Your task to perform on an android device: open app "Speedtest by Ookla" (install if not already installed) Image 0: 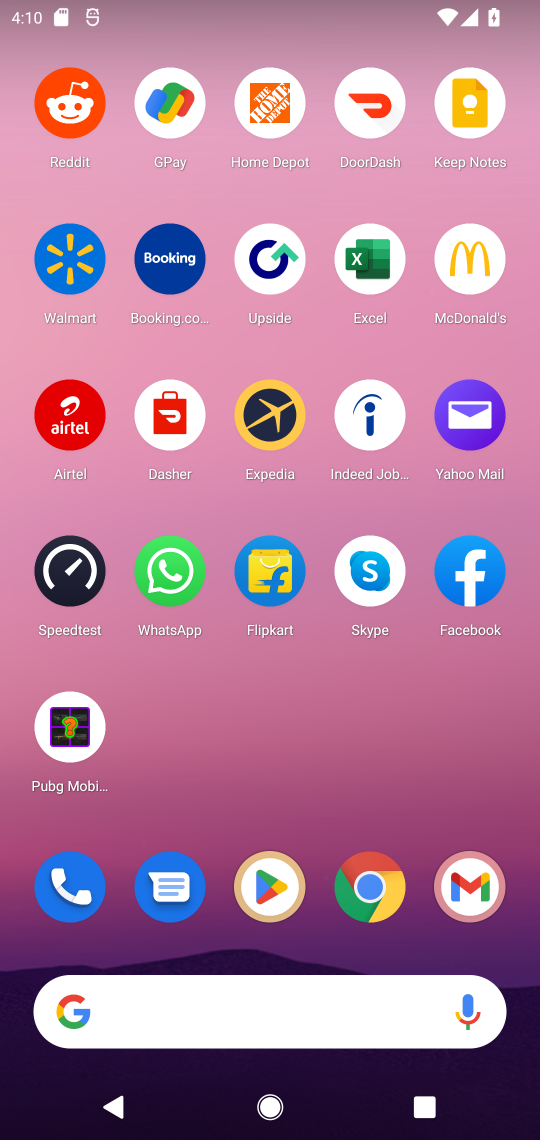
Step 0: click (252, 898)
Your task to perform on an android device: open app "Speedtest by Ookla" (install if not already installed) Image 1: 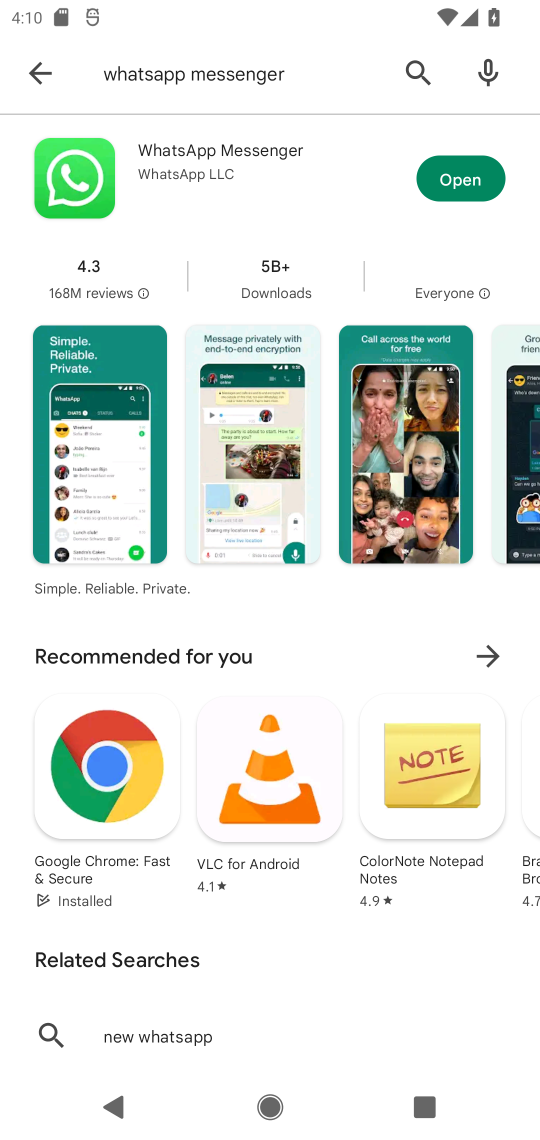
Step 1: click (36, 73)
Your task to perform on an android device: open app "Speedtest by Ookla" (install if not already installed) Image 2: 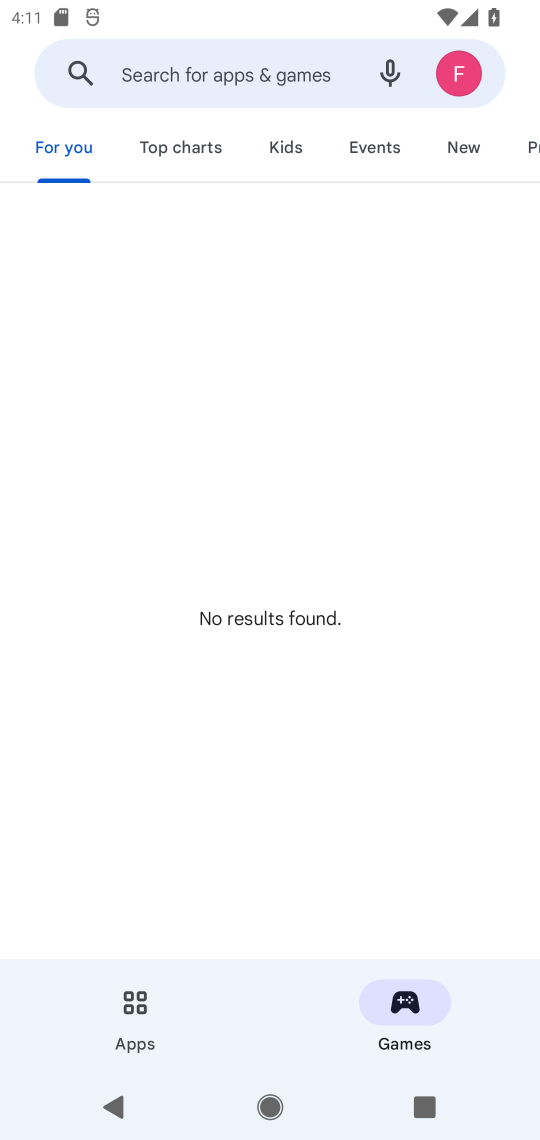
Step 2: click (189, 67)
Your task to perform on an android device: open app "Speedtest by Ookla" (install if not already installed) Image 3: 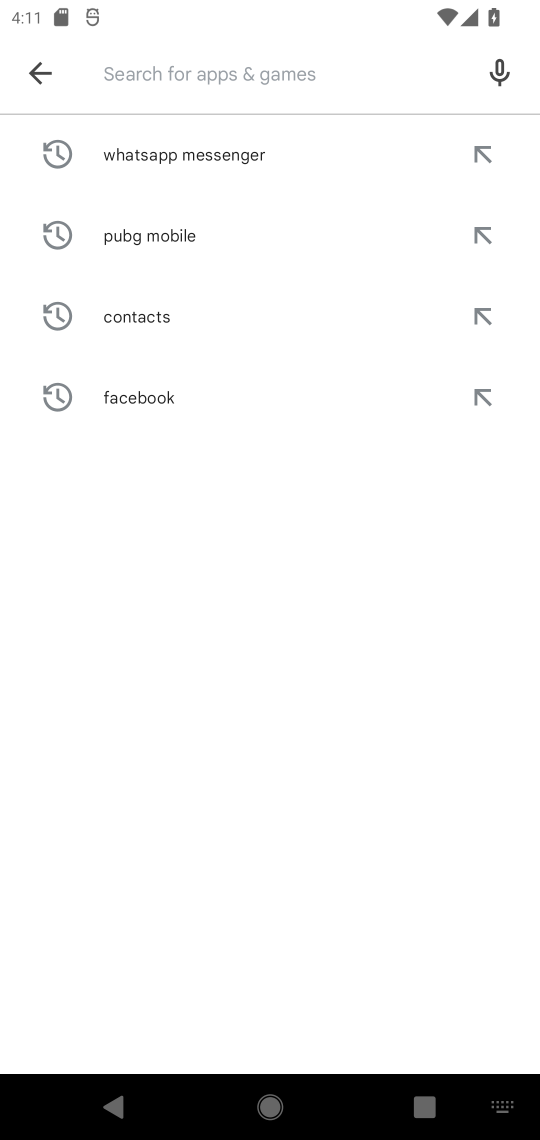
Step 3: type "Speedtest by Ookla"
Your task to perform on an android device: open app "Speedtest by Ookla" (install if not already installed) Image 4: 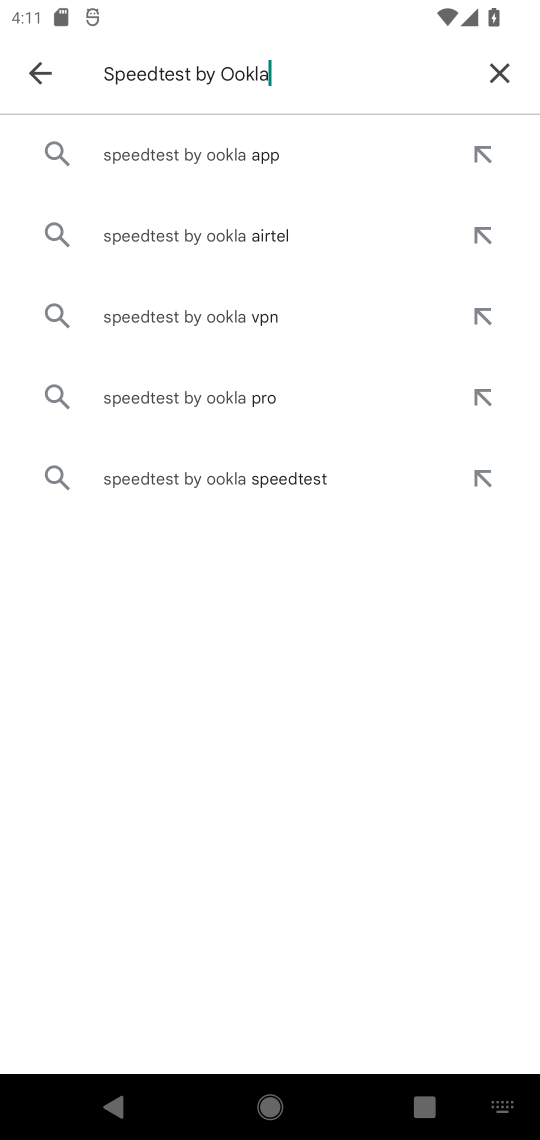
Step 4: click (220, 148)
Your task to perform on an android device: open app "Speedtest by Ookla" (install if not already installed) Image 5: 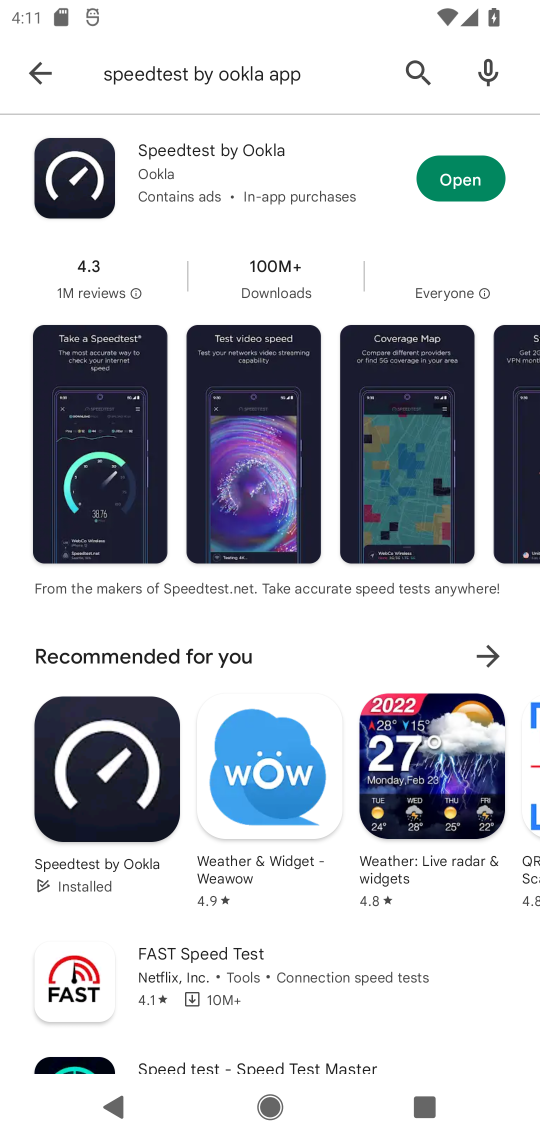
Step 5: click (451, 182)
Your task to perform on an android device: open app "Speedtest by Ookla" (install if not already installed) Image 6: 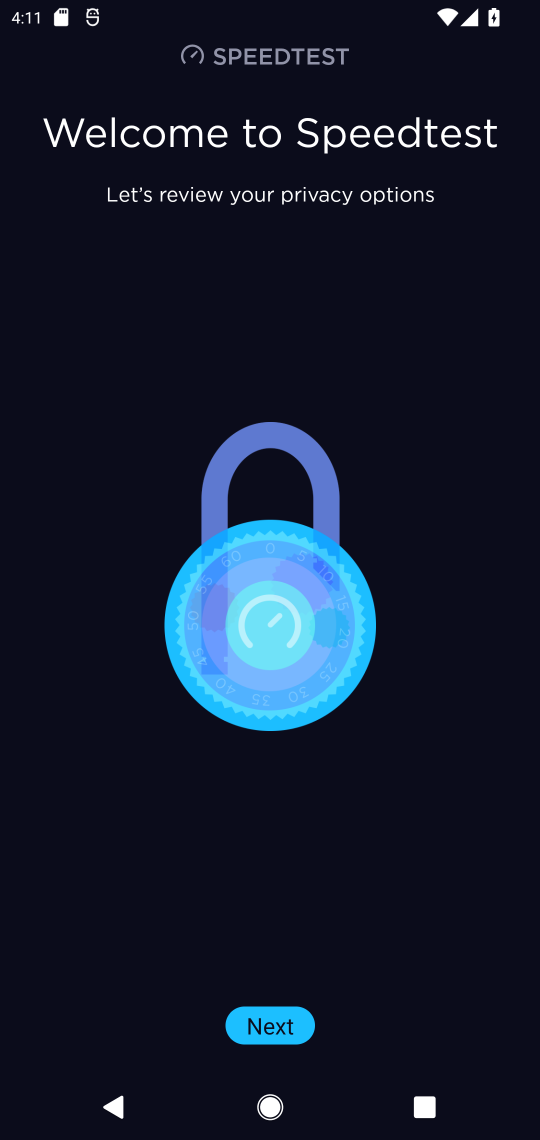
Step 6: click (272, 1030)
Your task to perform on an android device: open app "Speedtest by Ookla" (install if not already installed) Image 7: 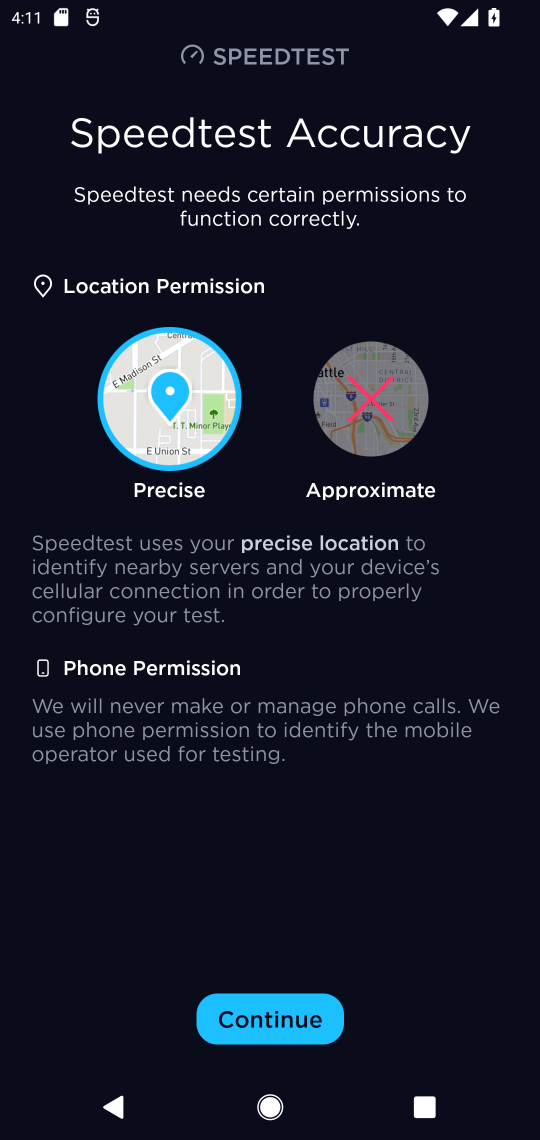
Step 7: click (272, 1030)
Your task to perform on an android device: open app "Speedtest by Ookla" (install if not already installed) Image 8: 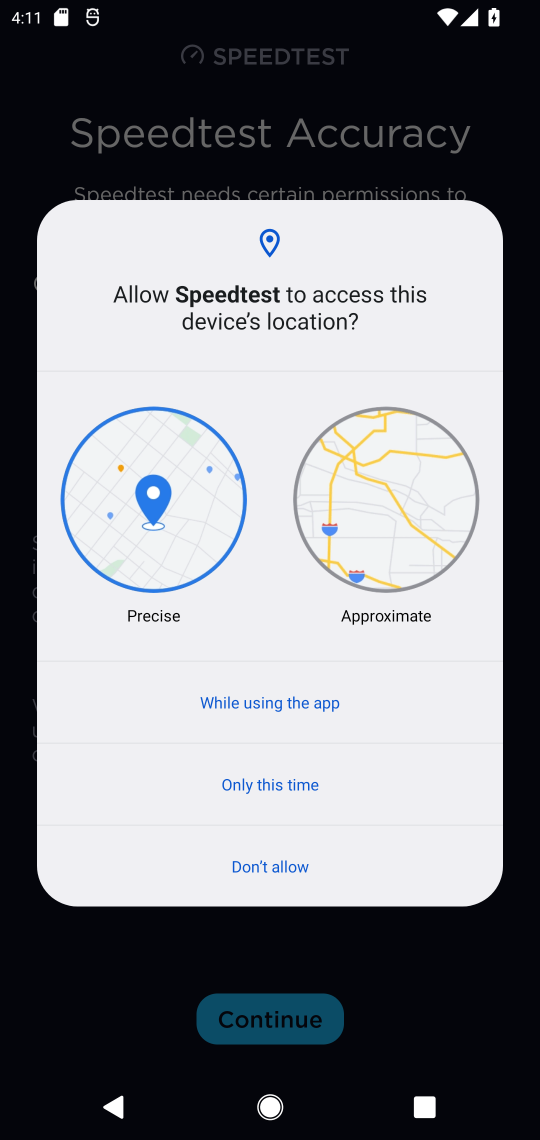
Step 8: click (299, 705)
Your task to perform on an android device: open app "Speedtest by Ookla" (install if not already installed) Image 9: 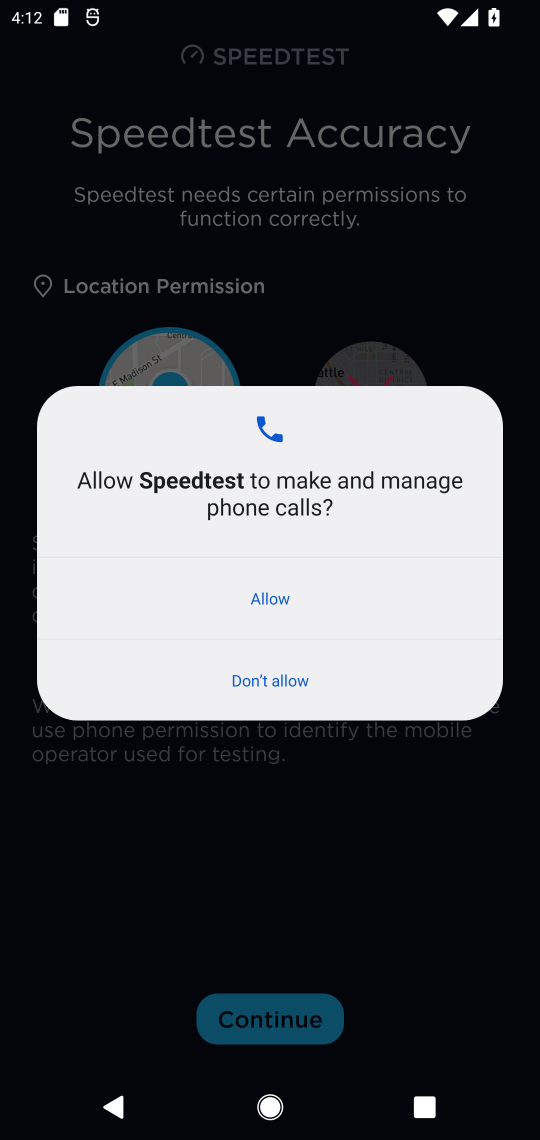
Step 9: click (268, 597)
Your task to perform on an android device: open app "Speedtest by Ookla" (install if not already installed) Image 10: 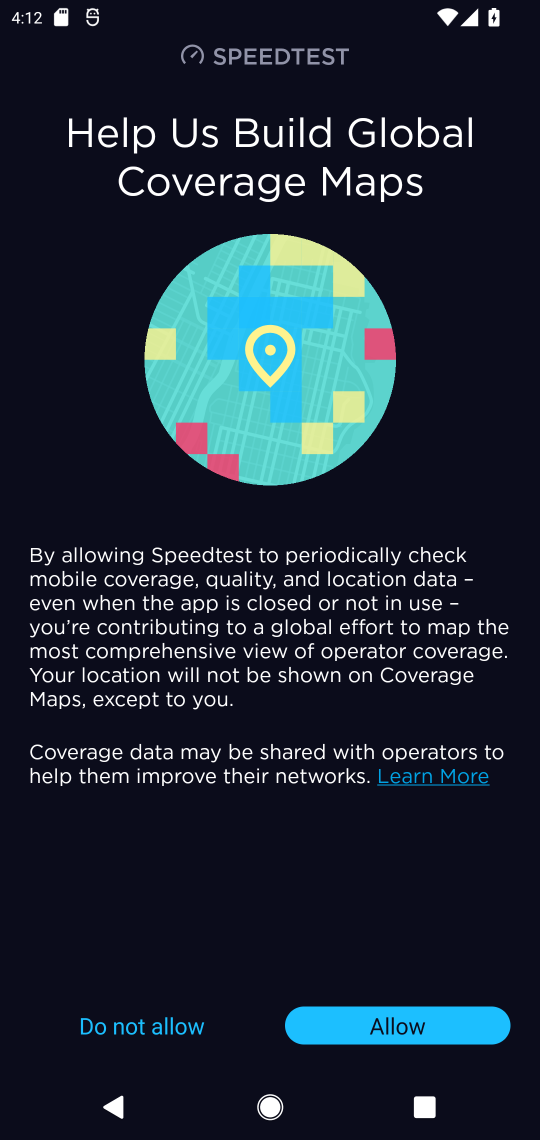
Step 10: task complete